Your task to perform on an android device: Open the Play Movies app and select the watchlist tab. Image 0: 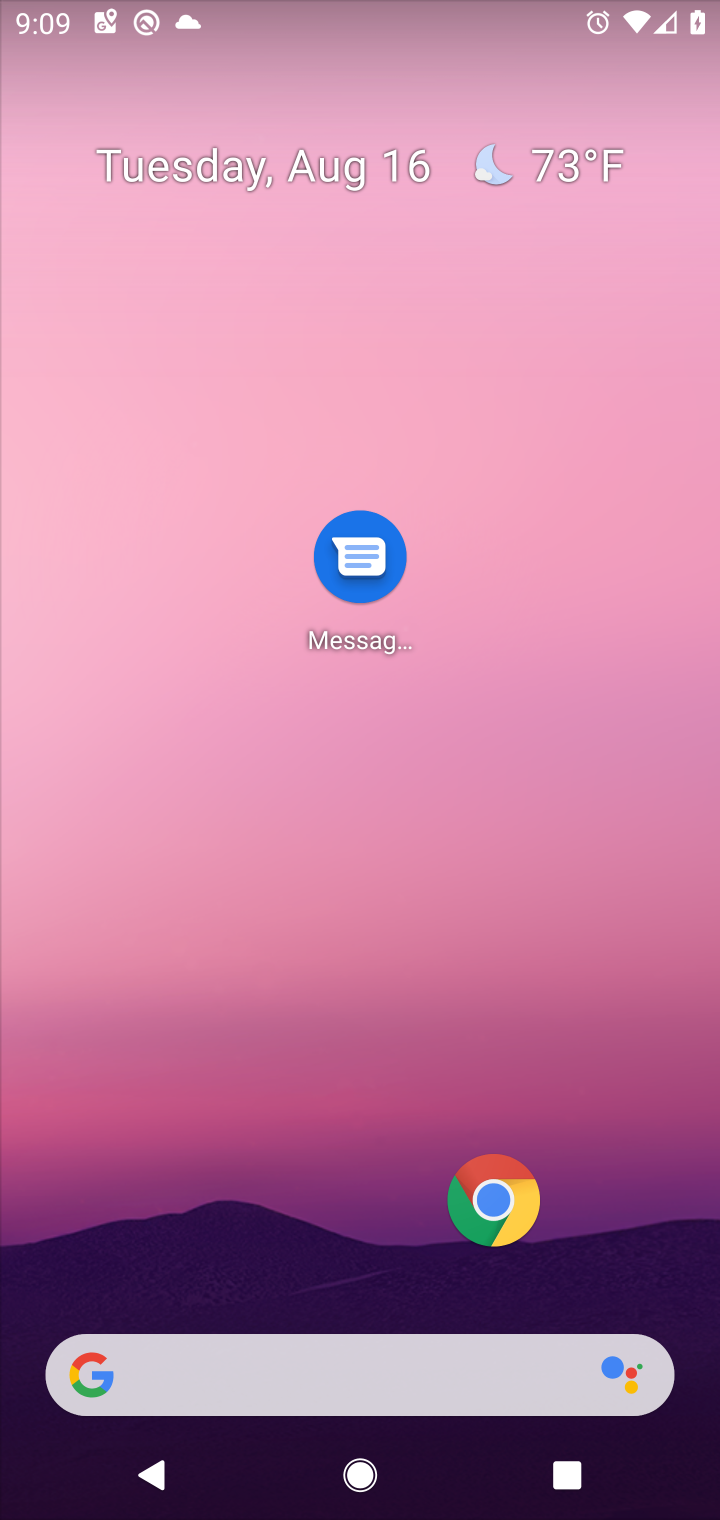
Step 0: drag from (53, 1447) to (207, 743)
Your task to perform on an android device: Open the Play Movies app and select the watchlist tab. Image 1: 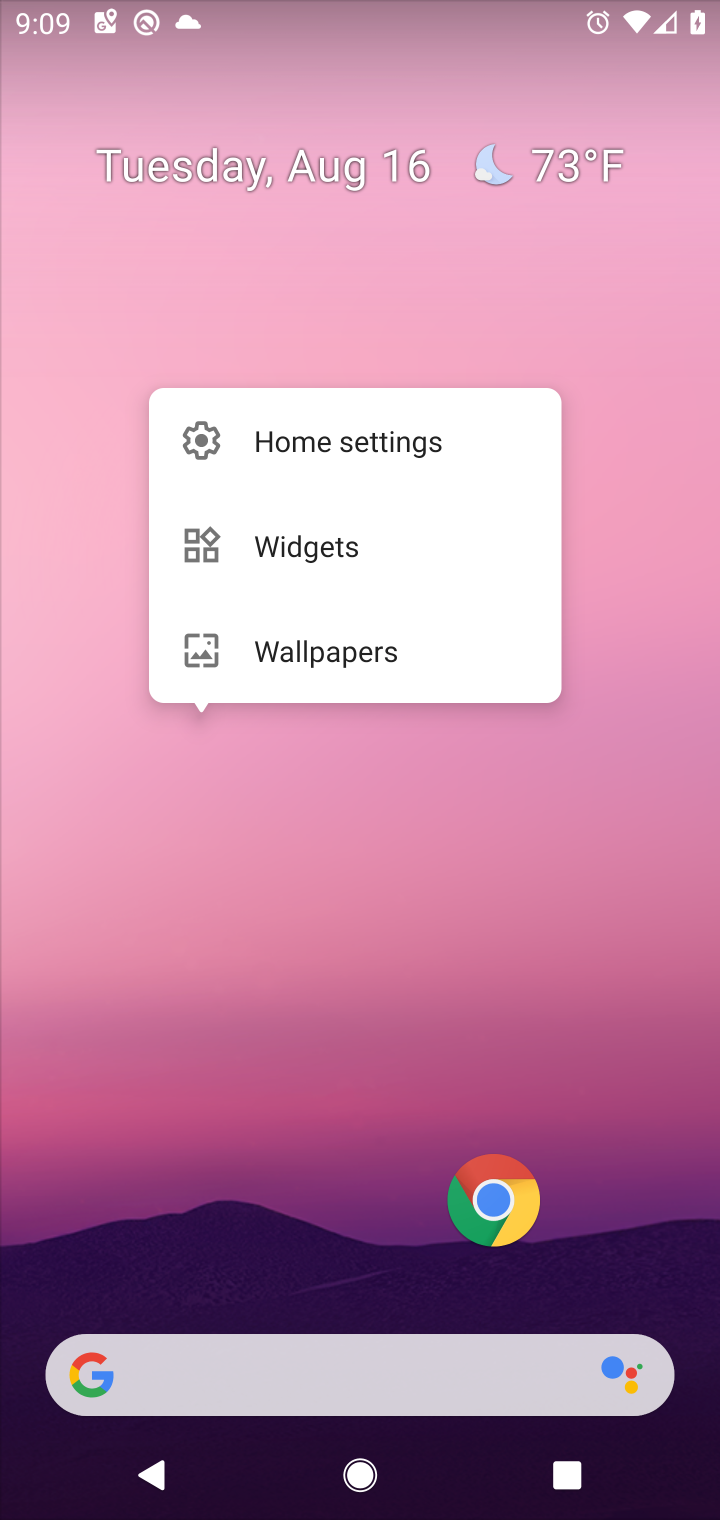
Step 1: click (161, 873)
Your task to perform on an android device: Open the Play Movies app and select the watchlist tab. Image 2: 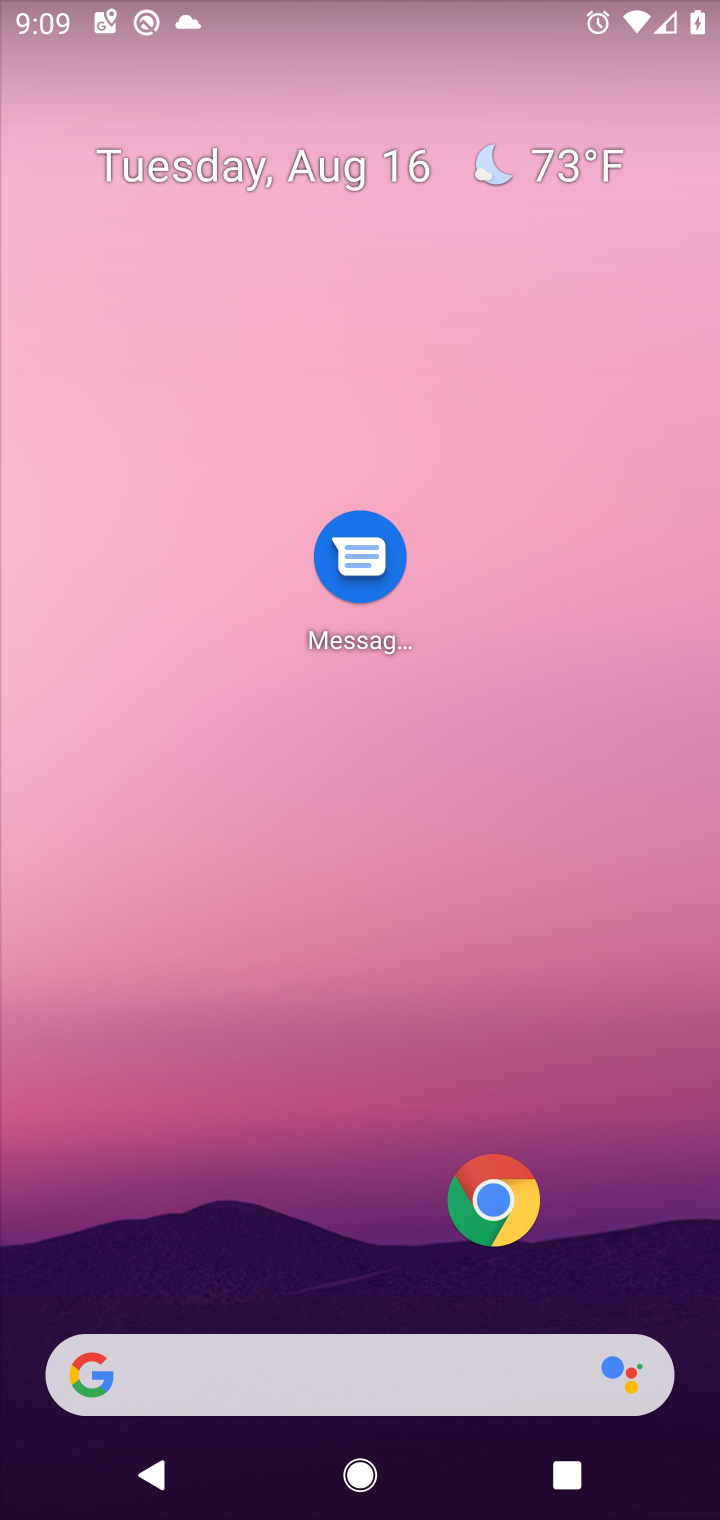
Step 2: drag from (38, 1469) to (232, 626)
Your task to perform on an android device: Open the Play Movies app and select the watchlist tab. Image 3: 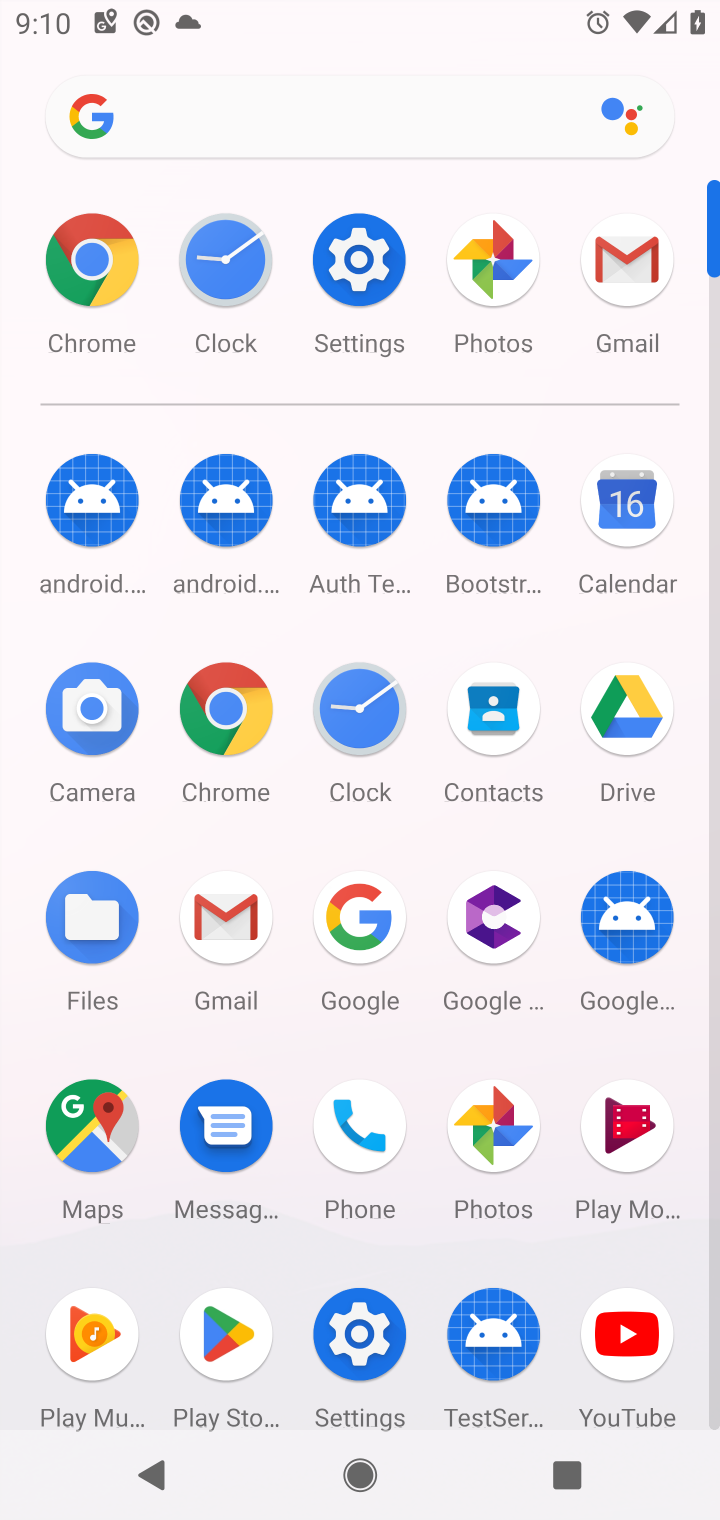
Step 3: click (653, 1142)
Your task to perform on an android device: Open the Play Movies app and select the watchlist tab. Image 4: 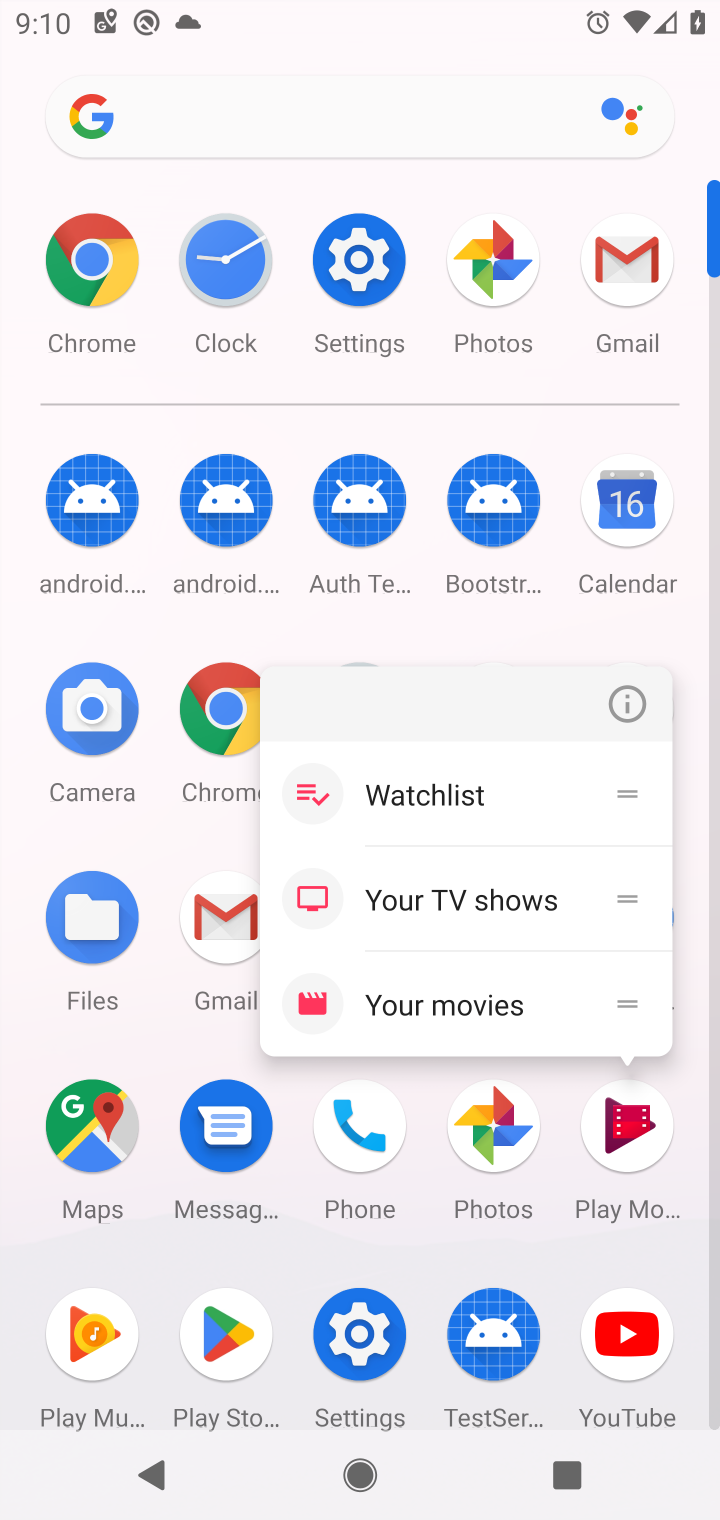
Step 4: click (653, 1142)
Your task to perform on an android device: Open the Play Movies app and select the watchlist tab. Image 5: 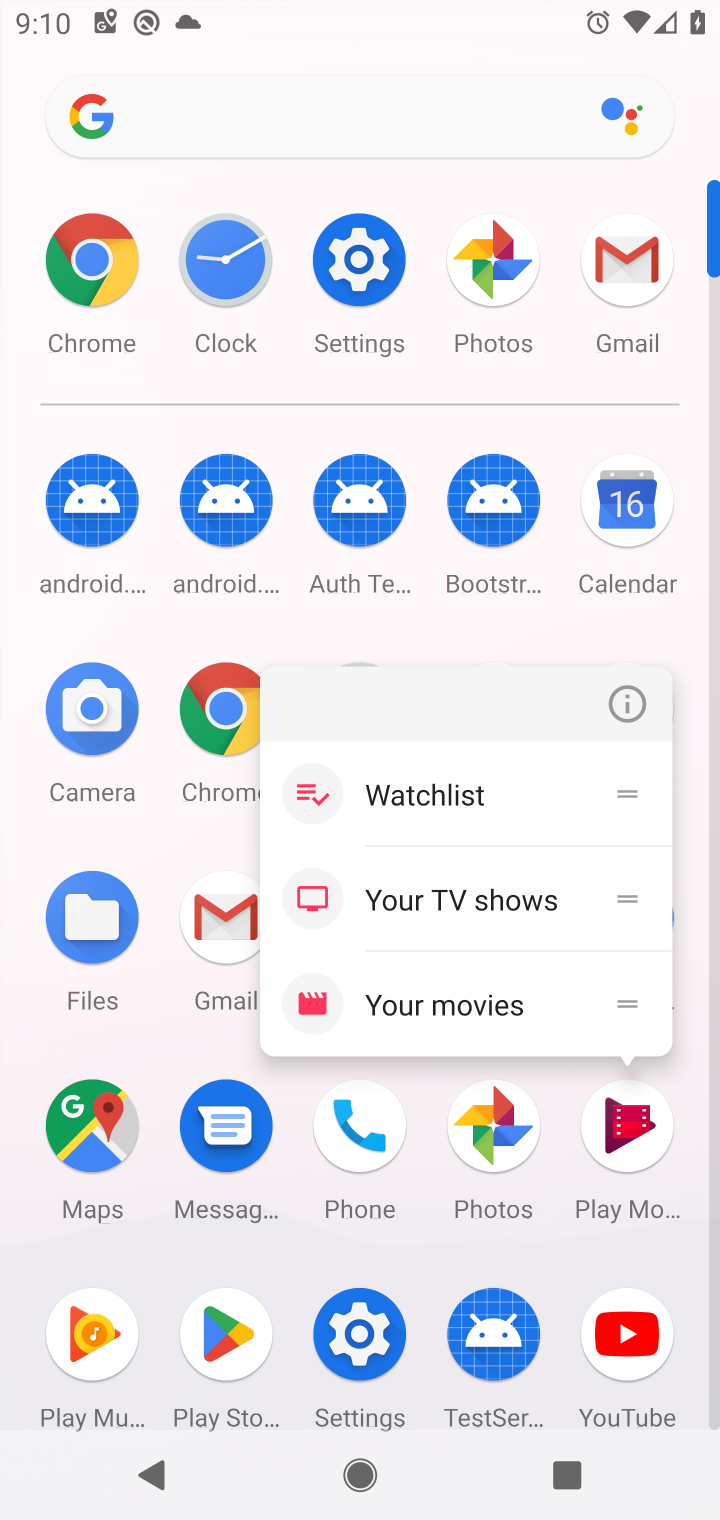
Step 5: click (653, 1142)
Your task to perform on an android device: Open the Play Movies app and select the watchlist tab. Image 6: 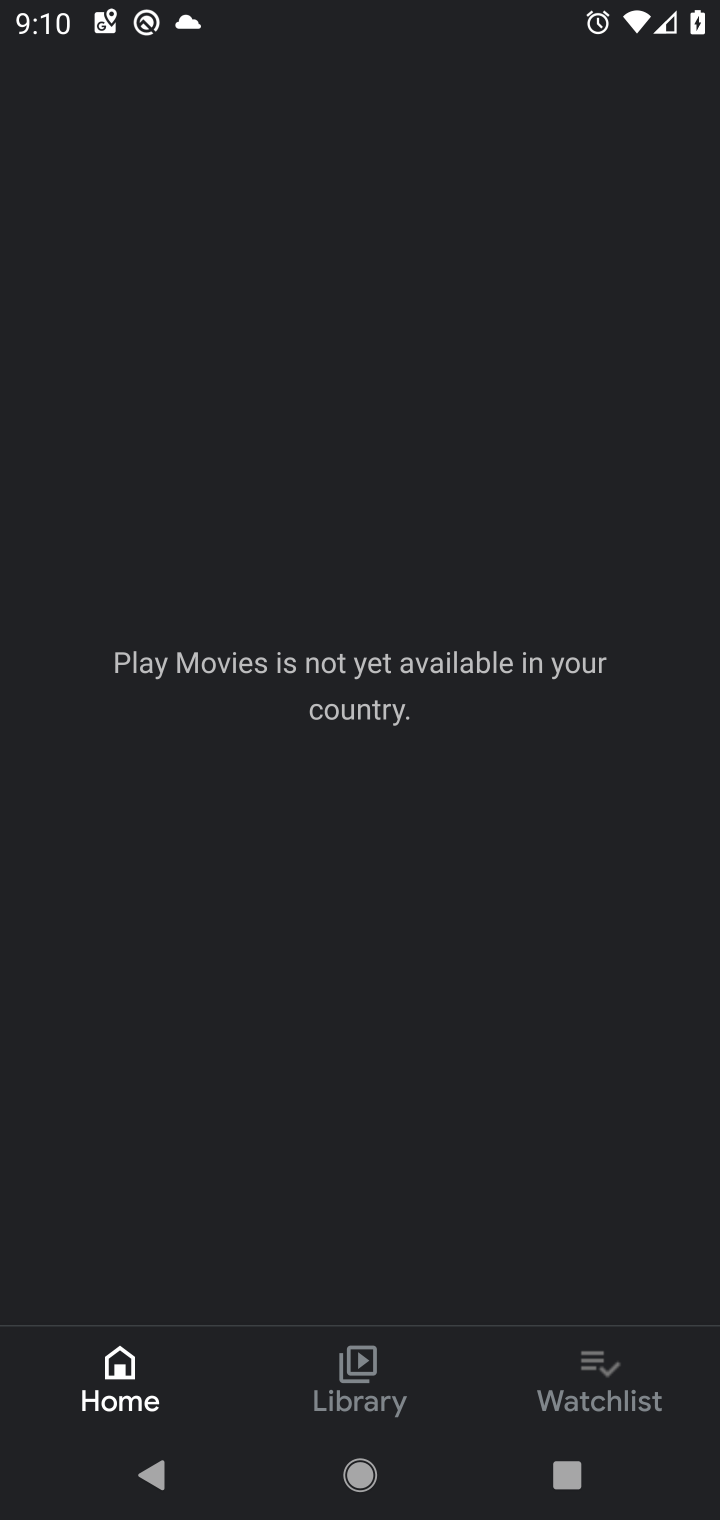
Step 6: click (575, 1391)
Your task to perform on an android device: Open the Play Movies app and select the watchlist tab. Image 7: 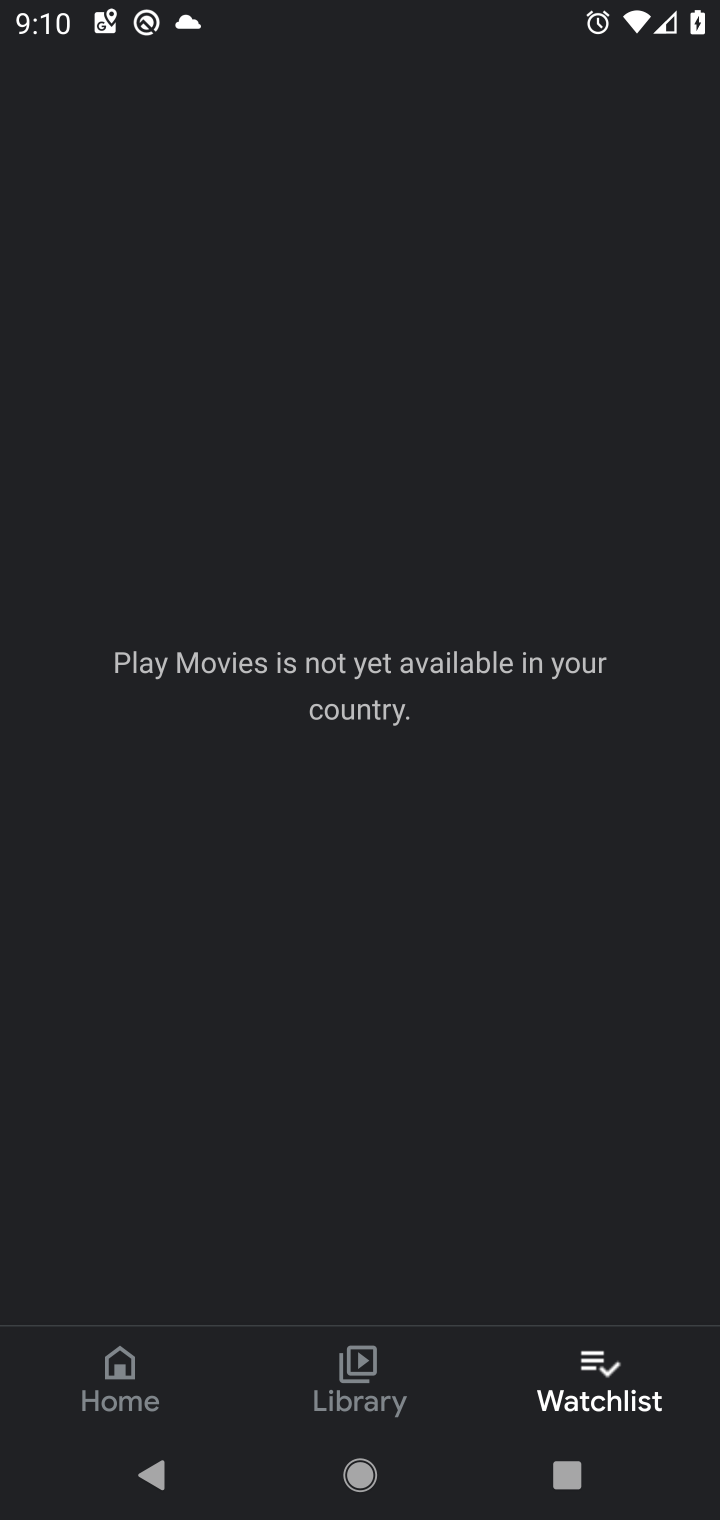
Step 7: task complete